Your task to perform on an android device: Is it going to rain this weekend? Image 0: 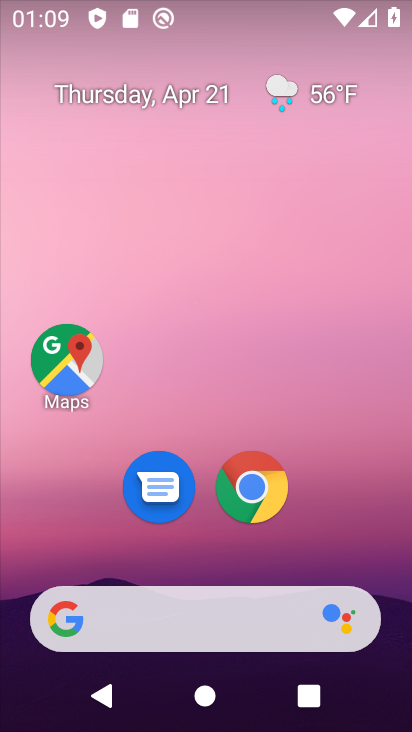
Step 0: drag from (231, 555) to (161, 0)
Your task to perform on an android device: Is it going to rain this weekend? Image 1: 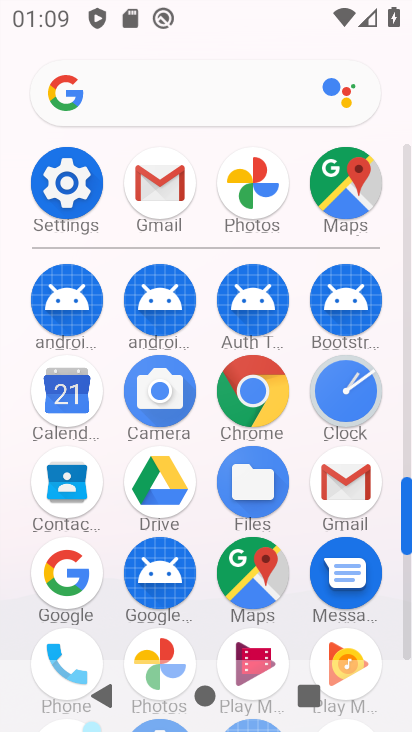
Step 1: click (167, 87)
Your task to perform on an android device: Is it going to rain this weekend? Image 2: 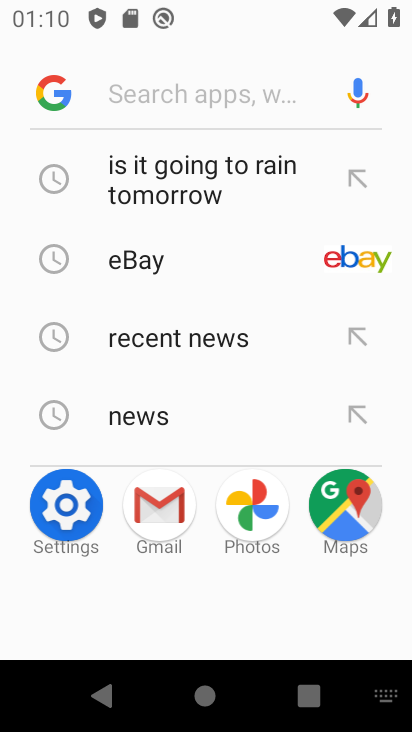
Step 2: type "is it going to rain this weekend "
Your task to perform on an android device: Is it going to rain this weekend? Image 3: 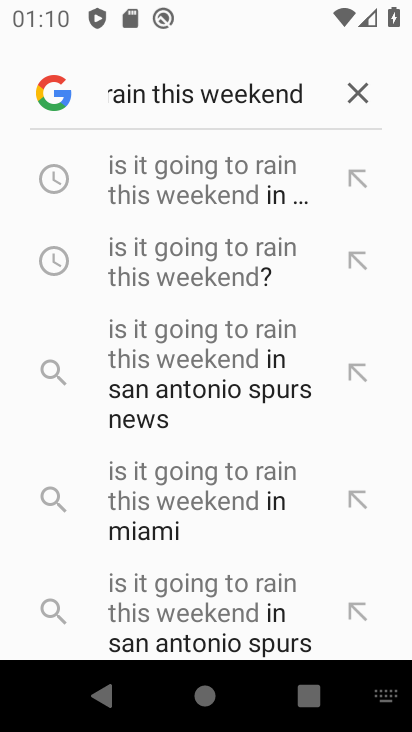
Step 3: click (237, 257)
Your task to perform on an android device: Is it going to rain this weekend? Image 4: 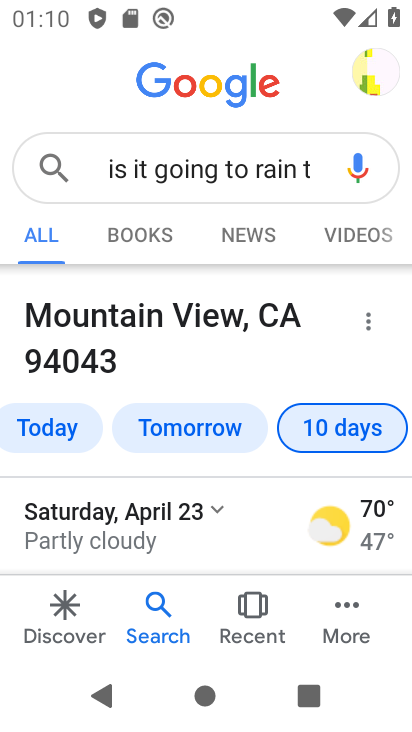
Step 4: task complete